Your task to perform on an android device: Go to Reddit.com Image 0: 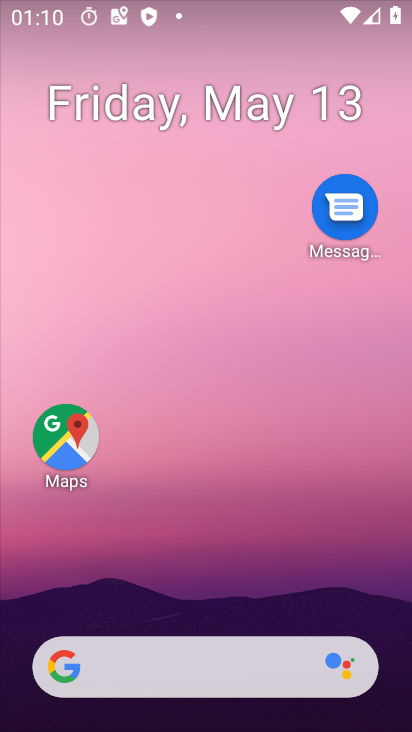
Step 0: drag from (147, 579) to (191, 40)
Your task to perform on an android device: Go to Reddit.com Image 1: 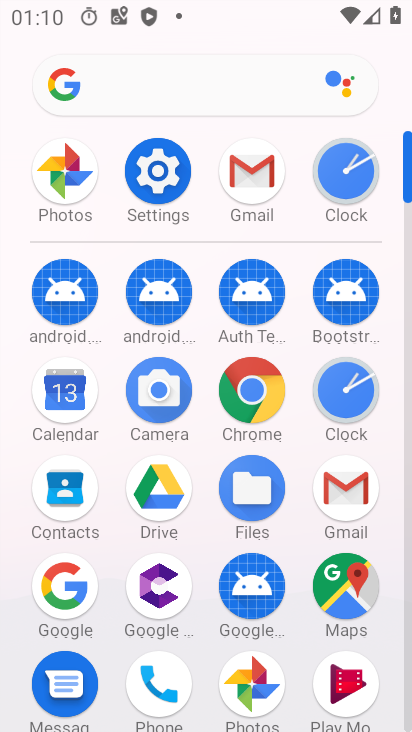
Step 1: click (249, 388)
Your task to perform on an android device: Go to Reddit.com Image 2: 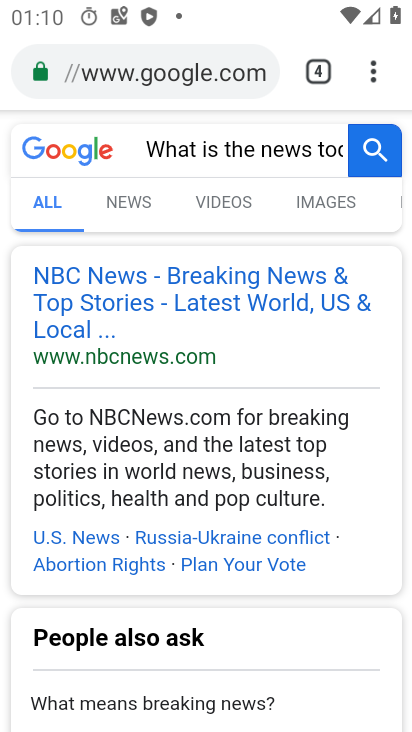
Step 2: click (228, 140)
Your task to perform on an android device: Go to Reddit.com Image 3: 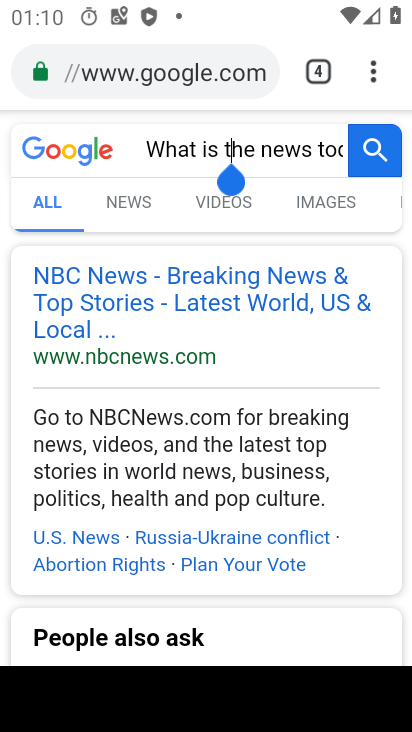
Step 3: click (216, 72)
Your task to perform on an android device: Go to Reddit.com Image 4: 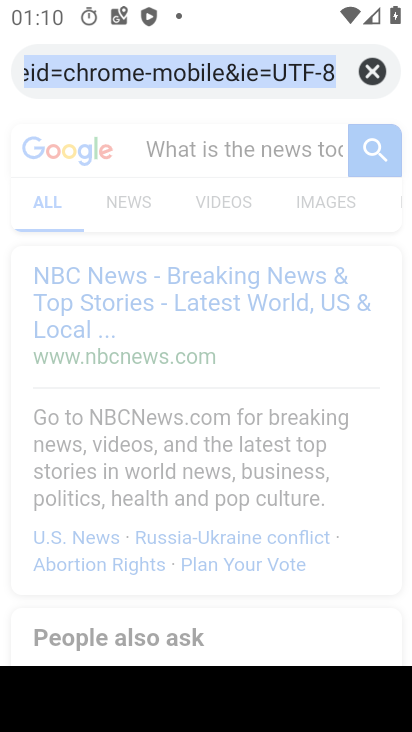
Step 4: click (369, 71)
Your task to perform on an android device: Go to Reddit.com Image 5: 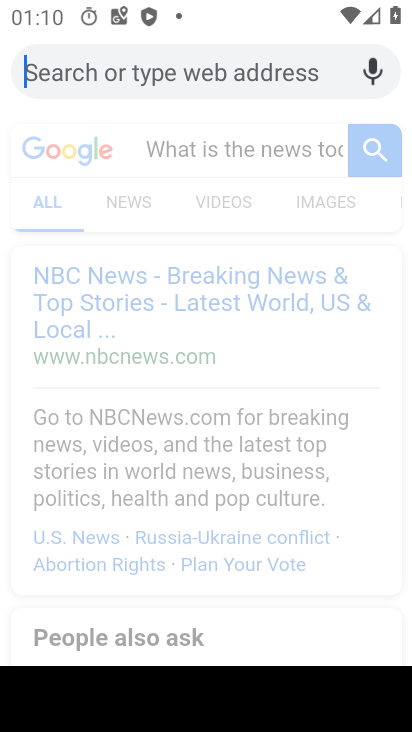
Step 5: type " Reddit.com"
Your task to perform on an android device: Go to Reddit.com Image 6: 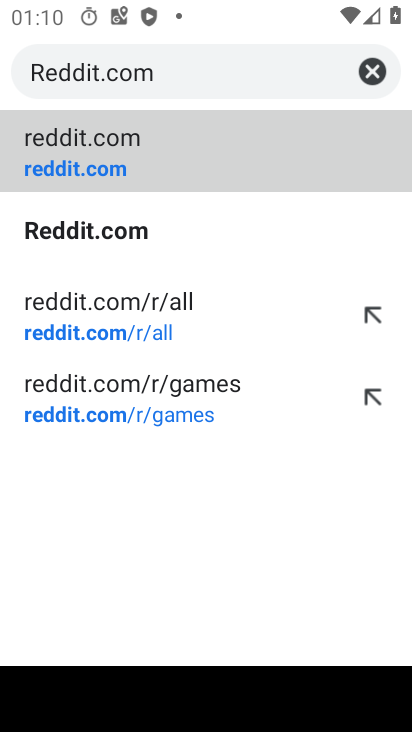
Step 6: click (77, 167)
Your task to perform on an android device: Go to Reddit.com Image 7: 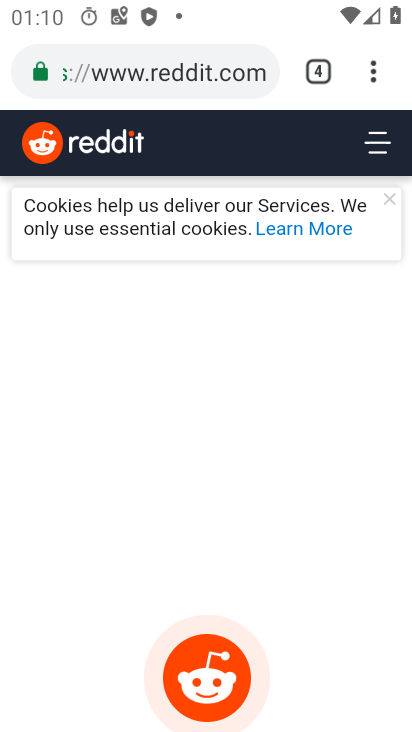
Step 7: task complete